Your task to perform on an android device: What is the recent news? Image 0: 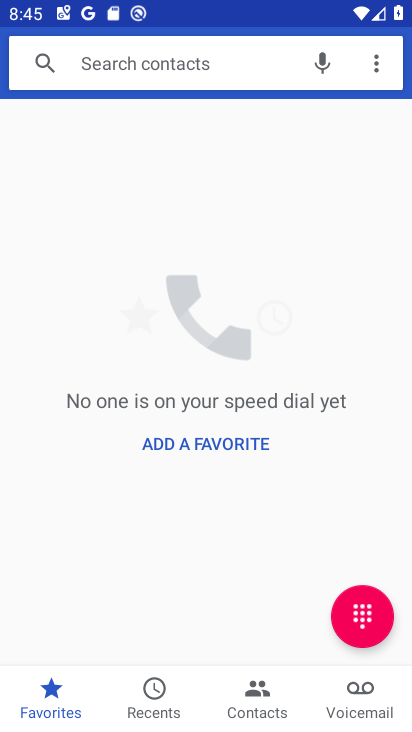
Step 0: press back button
Your task to perform on an android device: What is the recent news? Image 1: 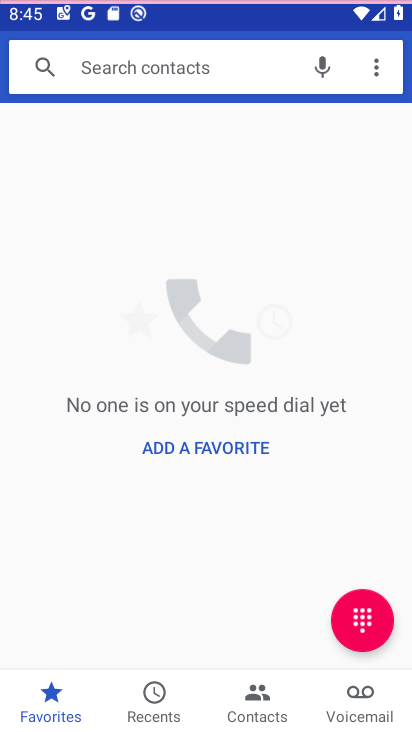
Step 1: task complete